Your task to perform on an android device: turn on the 24-hour format for clock Image 0: 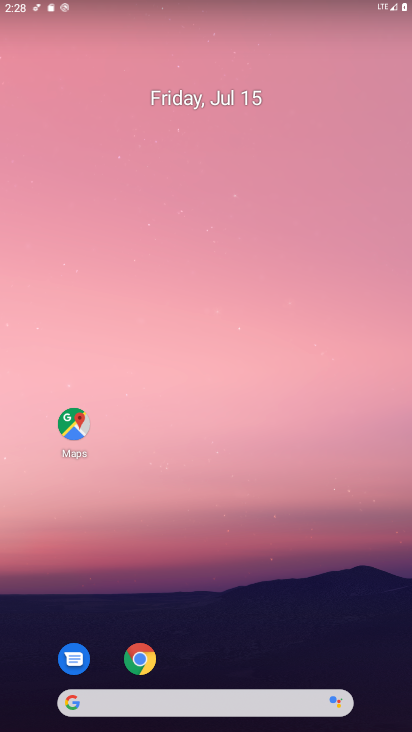
Step 0: drag from (152, 637) to (167, 283)
Your task to perform on an android device: turn on the 24-hour format for clock Image 1: 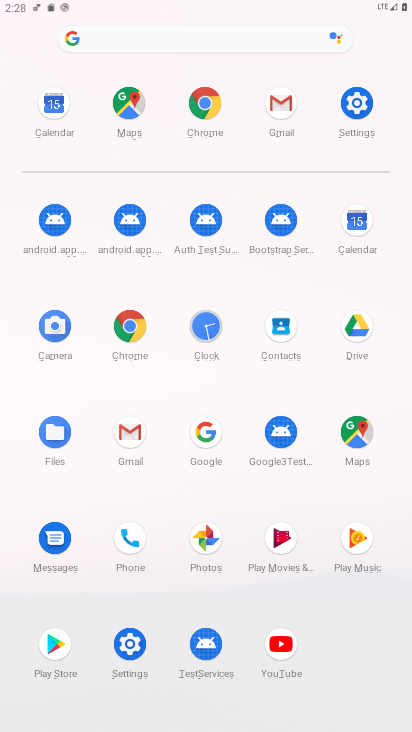
Step 1: click (206, 330)
Your task to perform on an android device: turn on the 24-hour format for clock Image 2: 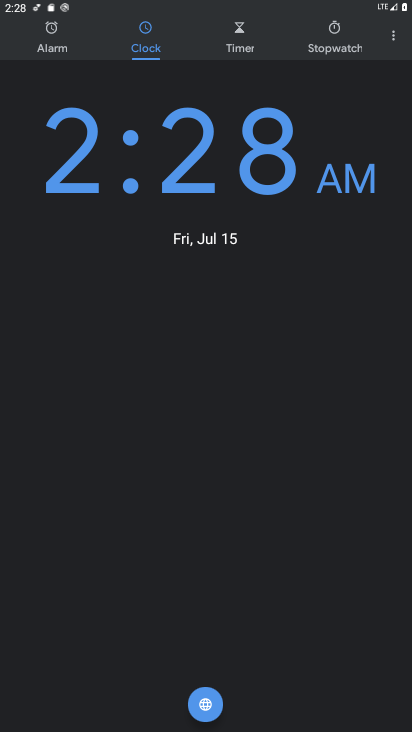
Step 2: click (393, 34)
Your task to perform on an android device: turn on the 24-hour format for clock Image 3: 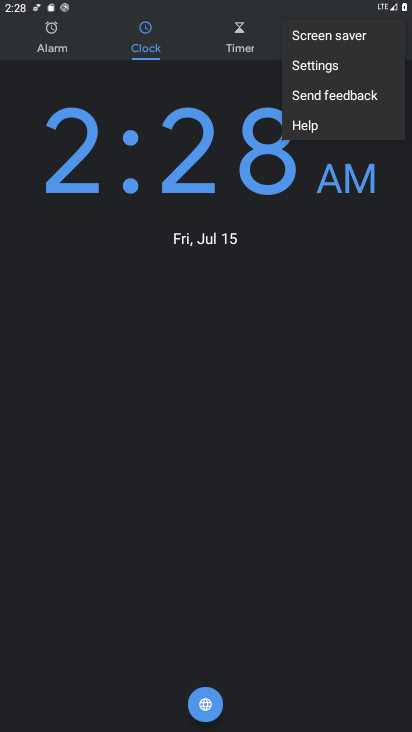
Step 3: click (322, 60)
Your task to perform on an android device: turn on the 24-hour format for clock Image 4: 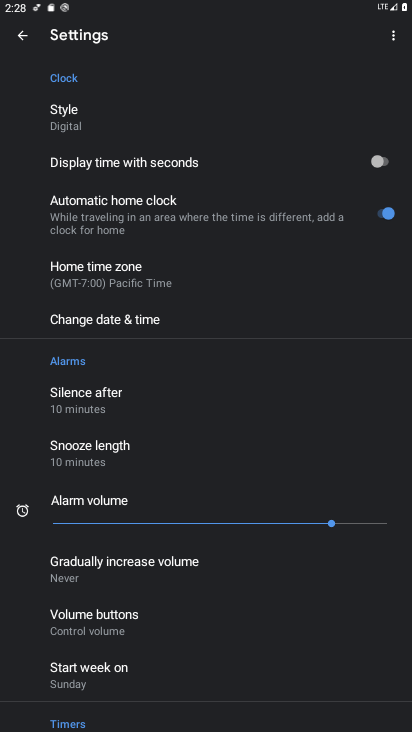
Step 4: click (131, 330)
Your task to perform on an android device: turn on the 24-hour format for clock Image 5: 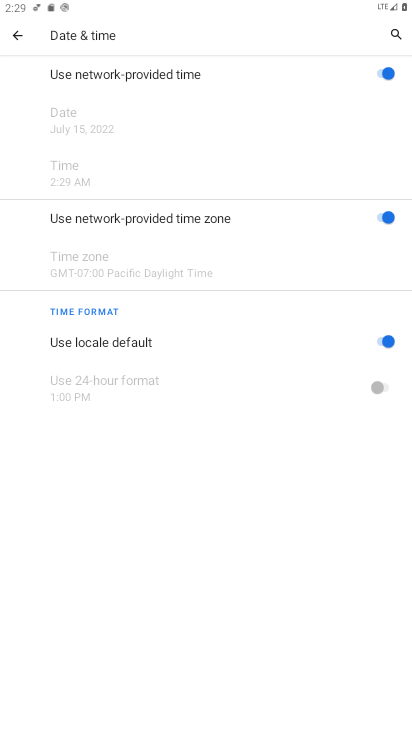
Step 5: click (379, 346)
Your task to perform on an android device: turn on the 24-hour format for clock Image 6: 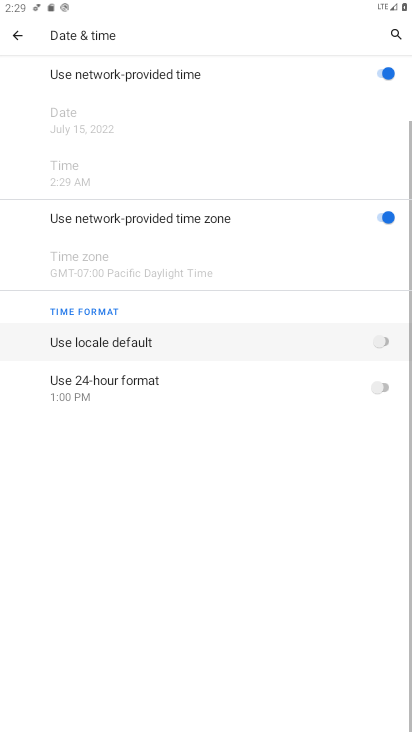
Step 6: click (389, 392)
Your task to perform on an android device: turn on the 24-hour format for clock Image 7: 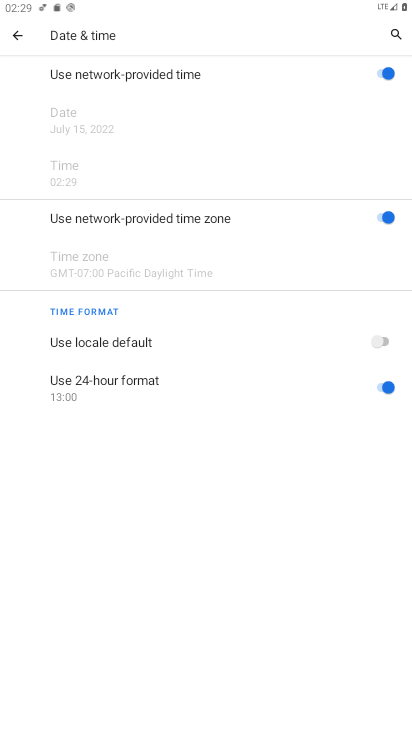
Step 7: task complete